Your task to perform on an android device: What is the news today? Image 0: 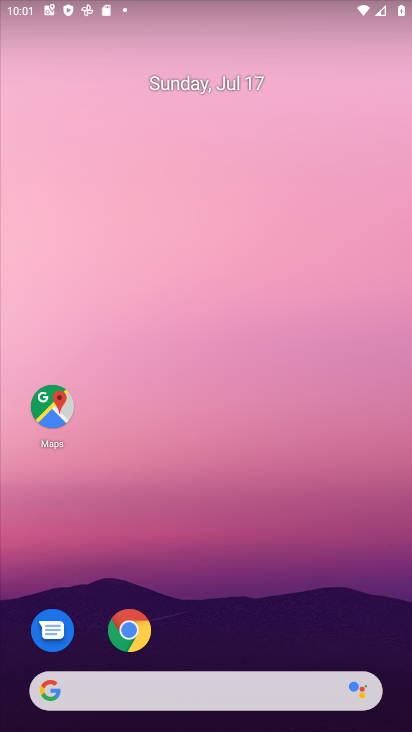
Step 0: drag from (249, 626) to (215, 305)
Your task to perform on an android device: What is the news today? Image 1: 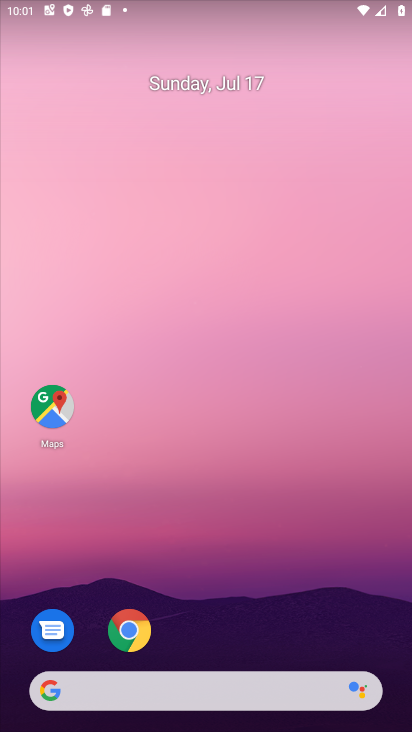
Step 1: drag from (268, 637) to (272, 342)
Your task to perform on an android device: What is the news today? Image 2: 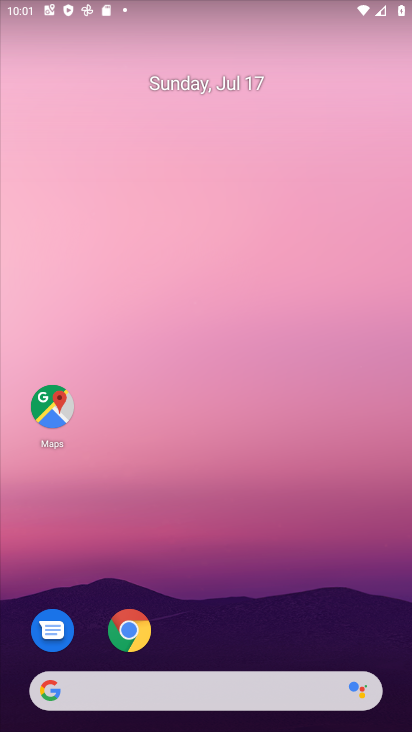
Step 2: drag from (226, 648) to (267, 235)
Your task to perform on an android device: What is the news today? Image 3: 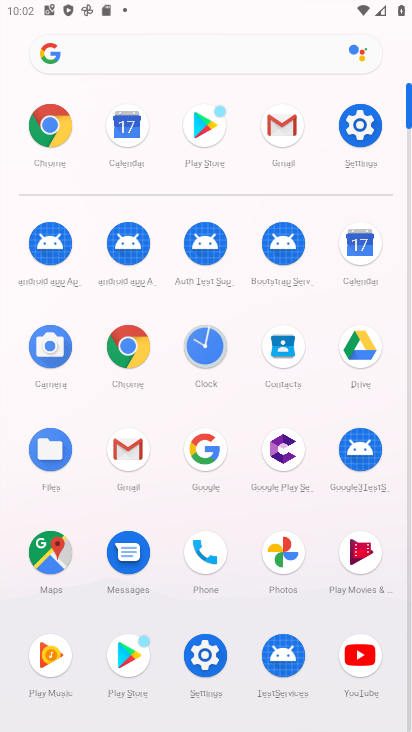
Step 3: click (200, 60)
Your task to perform on an android device: What is the news today? Image 4: 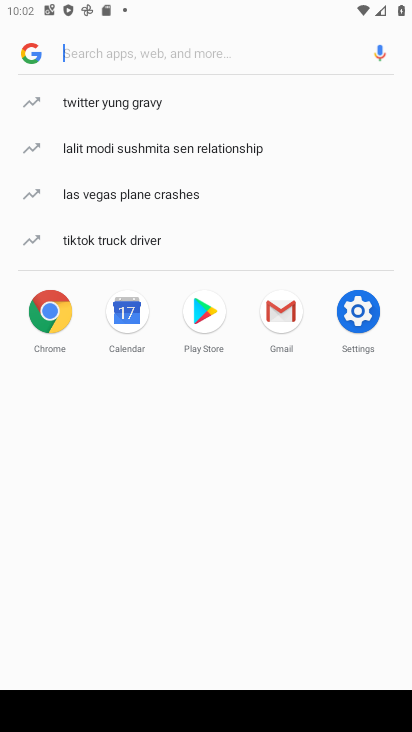
Step 4: type "news"
Your task to perform on an android device: What is the news today? Image 5: 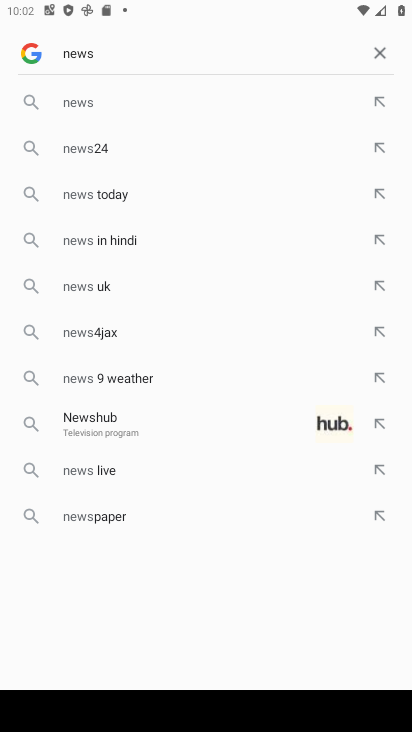
Step 5: click (116, 95)
Your task to perform on an android device: What is the news today? Image 6: 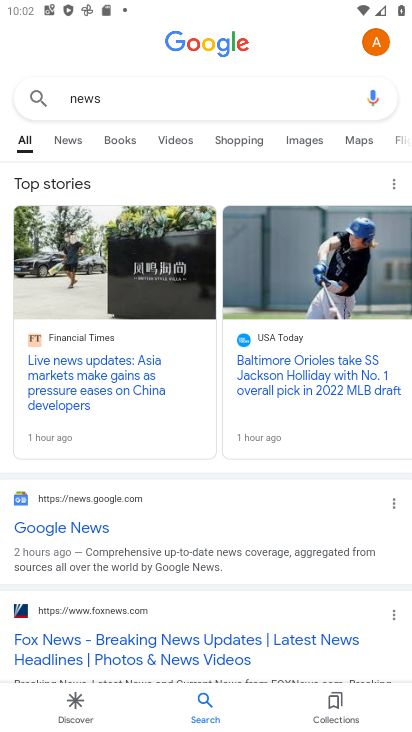
Step 6: task complete